Your task to perform on an android device: toggle translation in the chrome app Image 0: 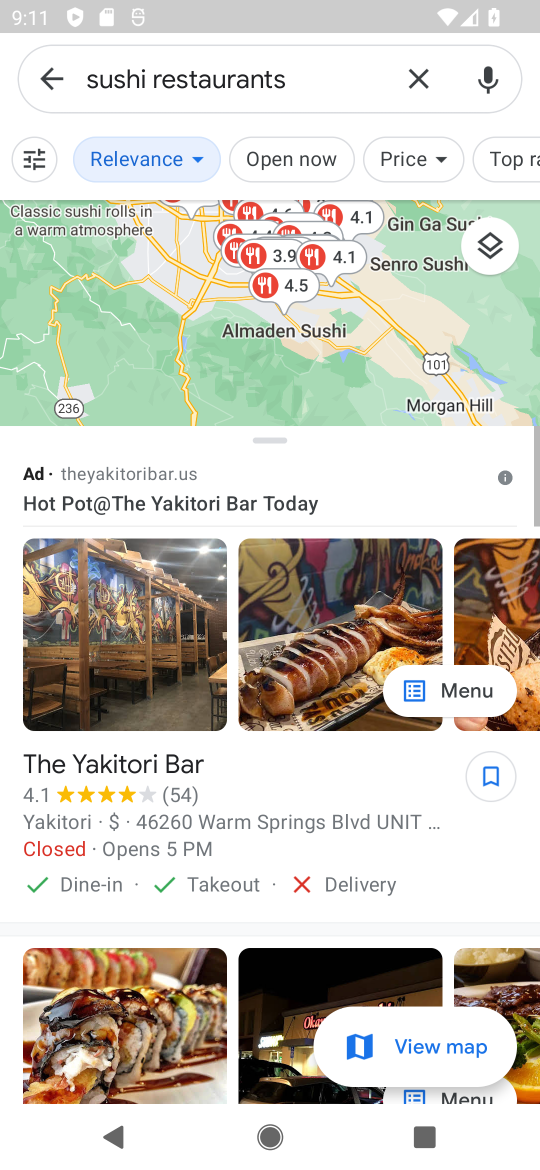
Step 0: press home button
Your task to perform on an android device: toggle translation in the chrome app Image 1: 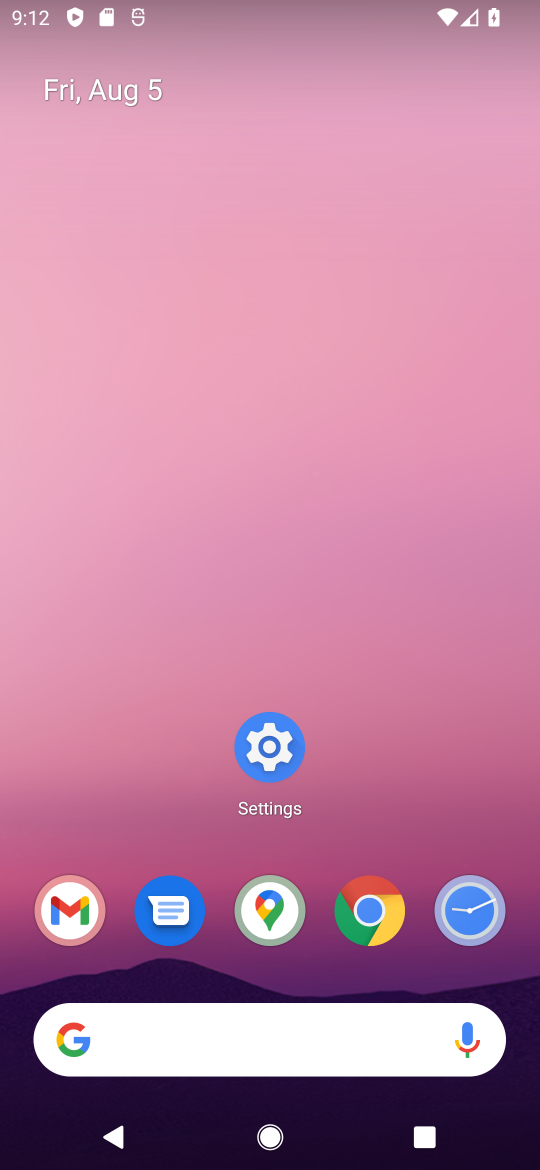
Step 1: click (374, 900)
Your task to perform on an android device: toggle translation in the chrome app Image 2: 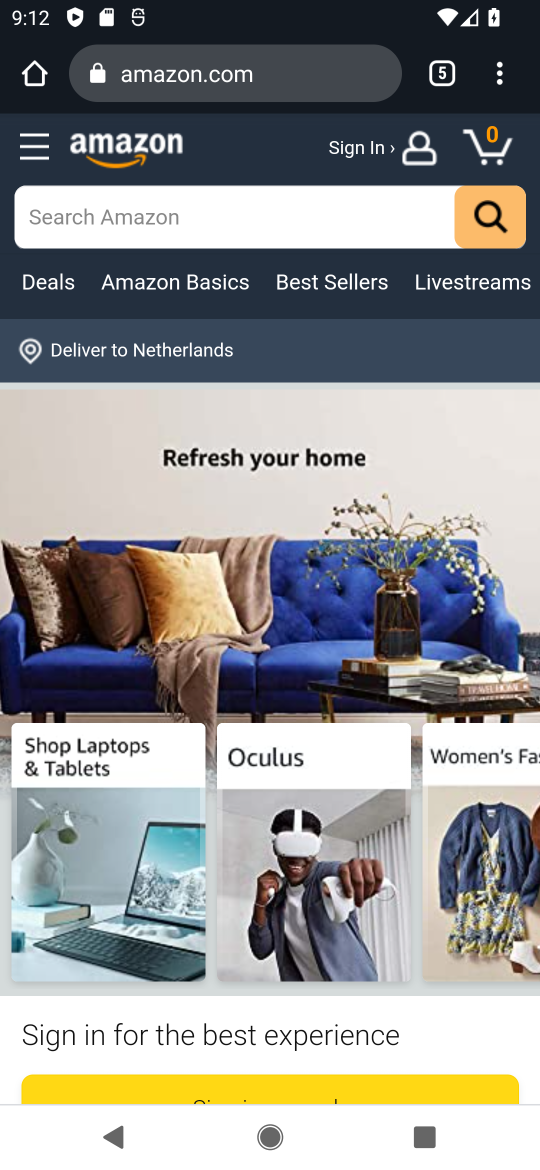
Step 2: drag from (507, 69) to (347, 974)
Your task to perform on an android device: toggle translation in the chrome app Image 3: 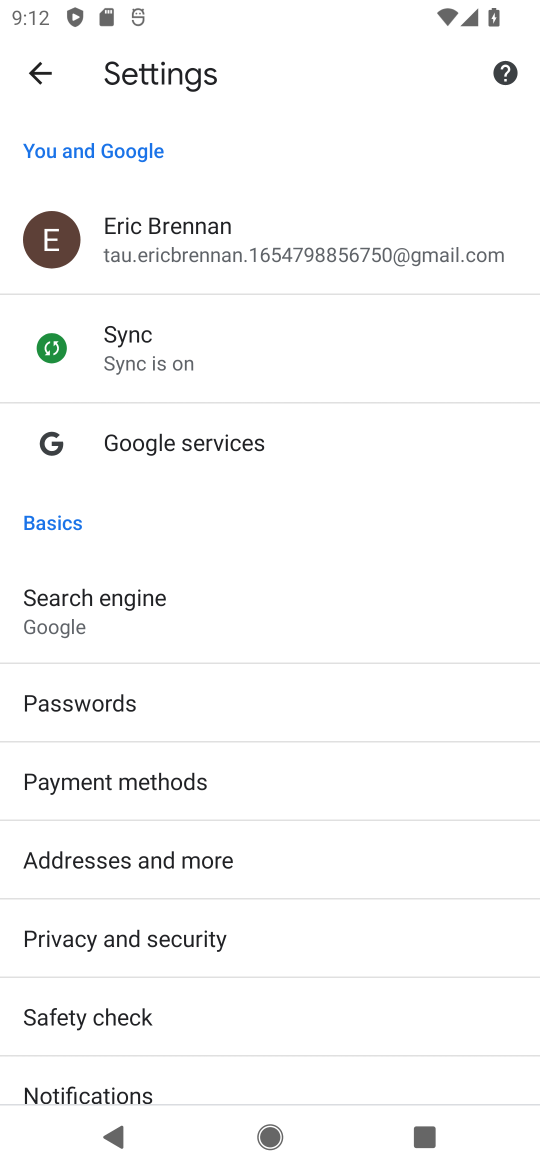
Step 3: drag from (326, 855) to (398, 296)
Your task to perform on an android device: toggle translation in the chrome app Image 4: 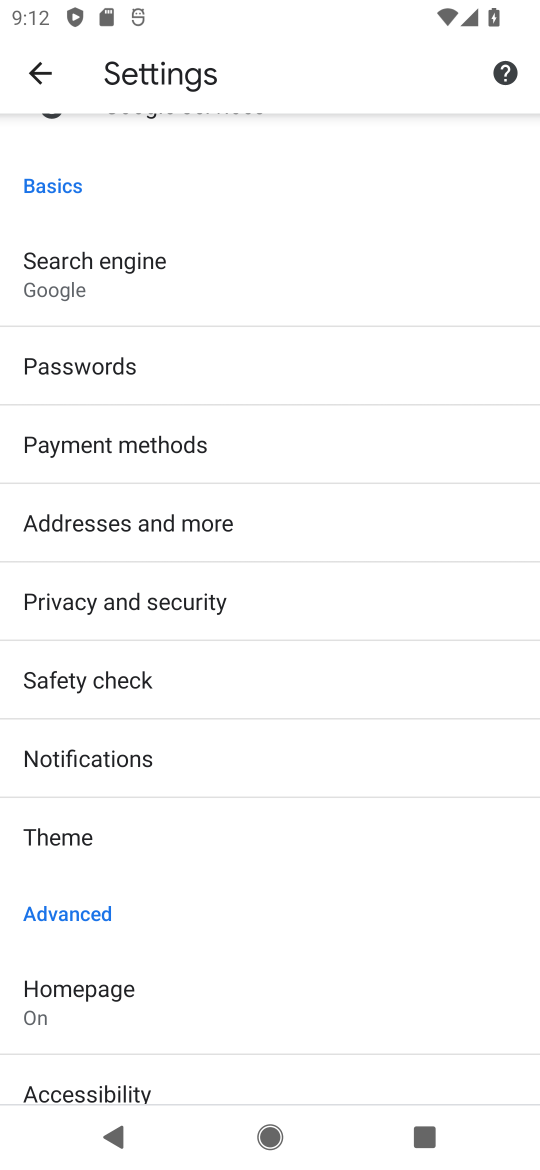
Step 4: drag from (194, 1000) to (338, 170)
Your task to perform on an android device: toggle translation in the chrome app Image 5: 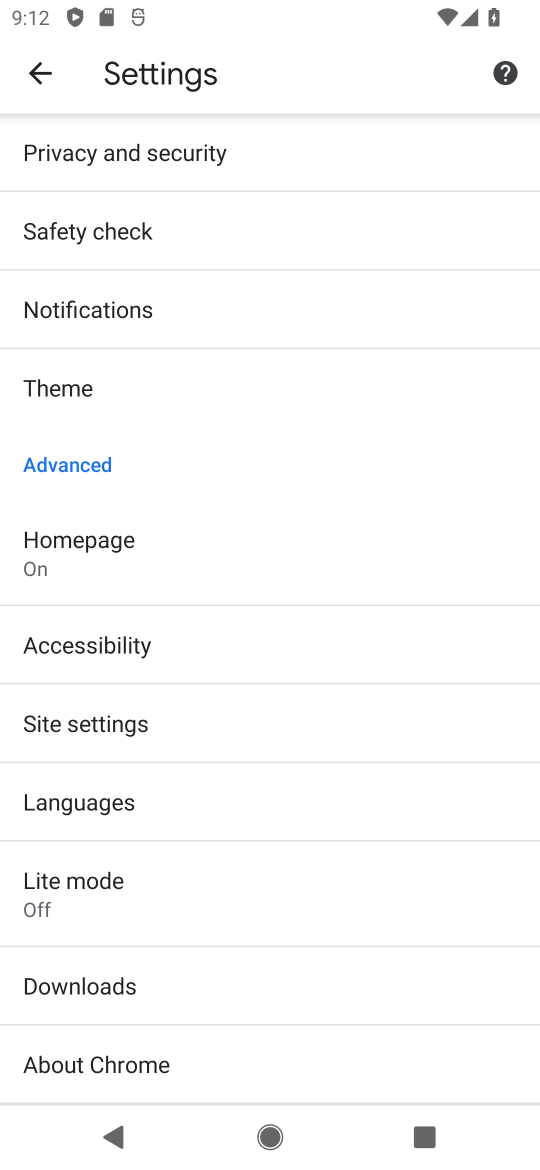
Step 5: click (128, 809)
Your task to perform on an android device: toggle translation in the chrome app Image 6: 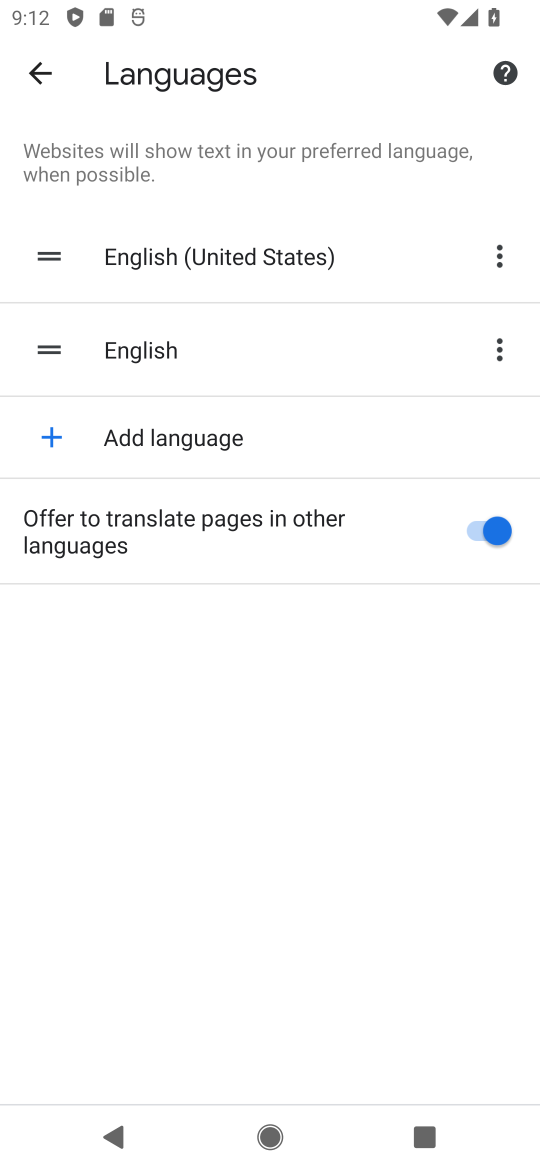
Step 6: click (475, 524)
Your task to perform on an android device: toggle translation in the chrome app Image 7: 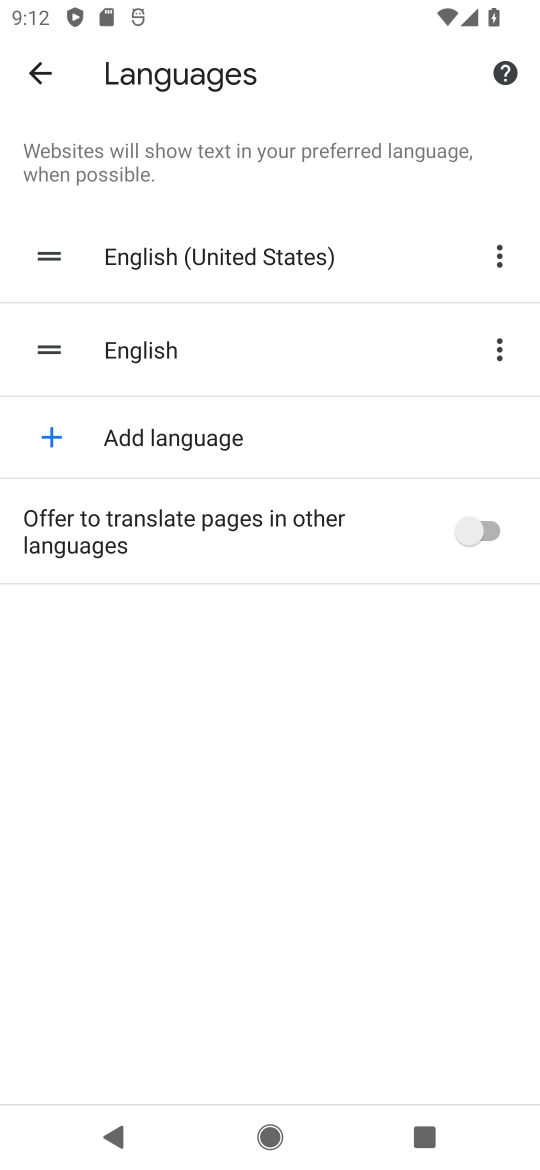
Step 7: task complete